Your task to perform on an android device: Go to settings Image 0: 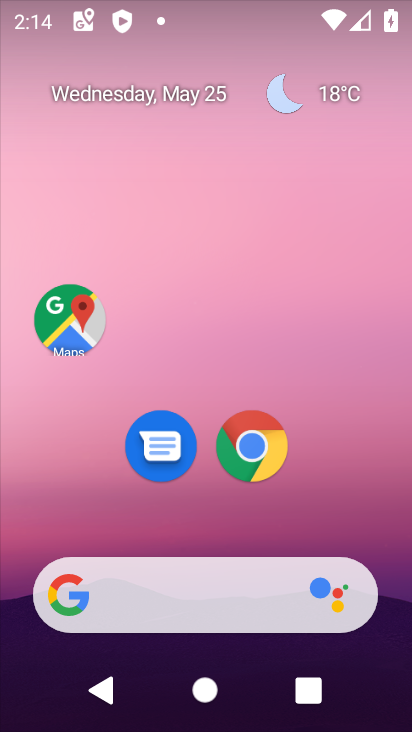
Step 0: drag from (286, 558) to (247, 7)
Your task to perform on an android device: Go to settings Image 1: 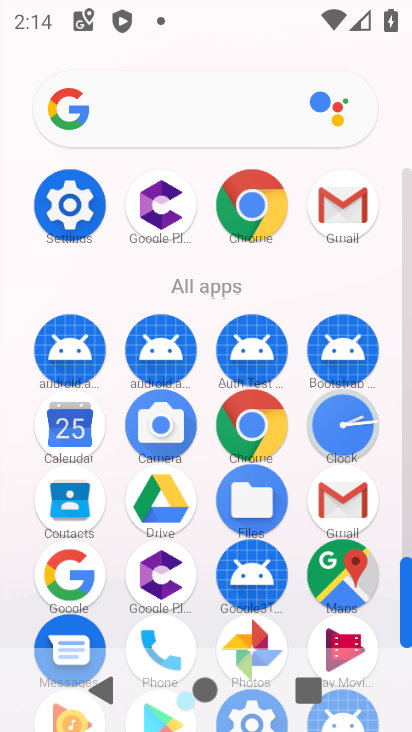
Step 1: click (75, 238)
Your task to perform on an android device: Go to settings Image 2: 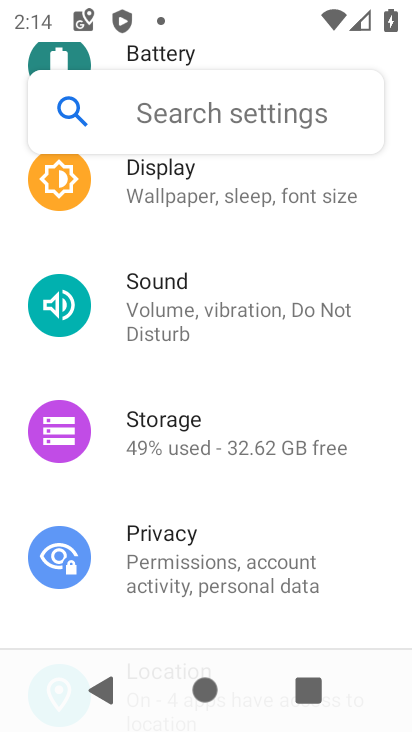
Step 2: task complete